Your task to perform on an android device: Go to Maps Image 0: 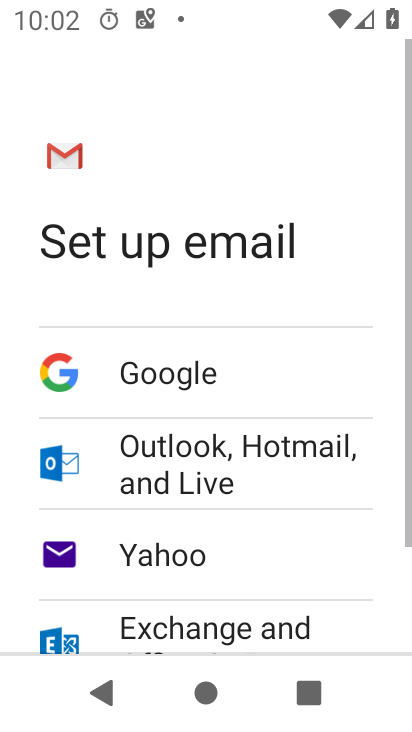
Step 0: press home button
Your task to perform on an android device: Go to Maps Image 1: 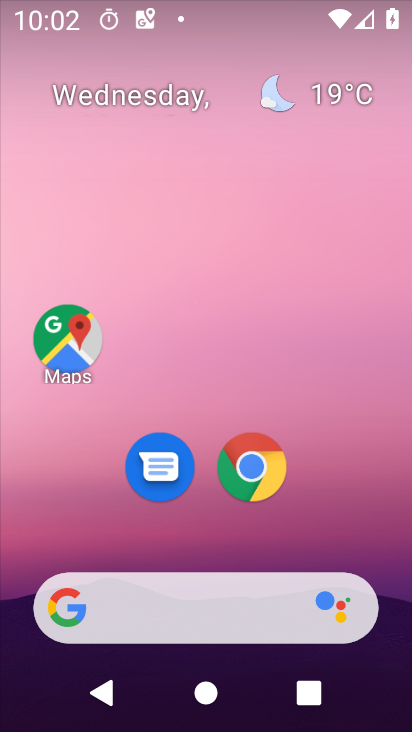
Step 1: click (85, 323)
Your task to perform on an android device: Go to Maps Image 2: 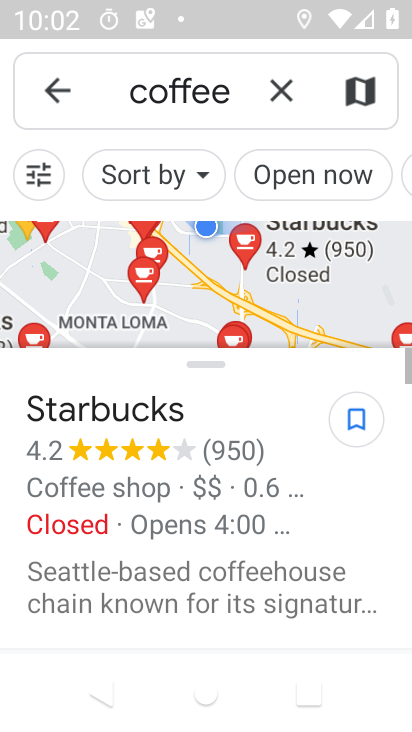
Step 2: task complete